Your task to perform on an android device: check battery use Image 0: 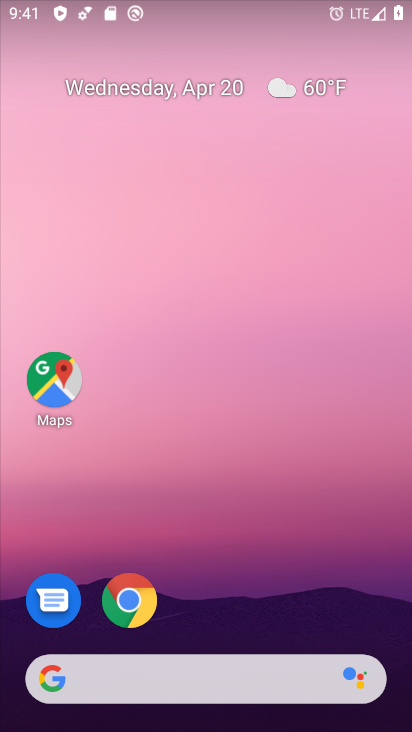
Step 0: drag from (208, 634) to (236, 25)
Your task to perform on an android device: check battery use Image 1: 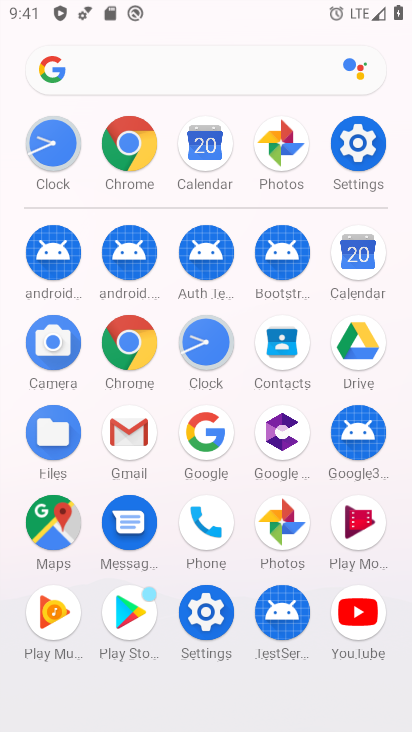
Step 1: click (360, 143)
Your task to perform on an android device: check battery use Image 2: 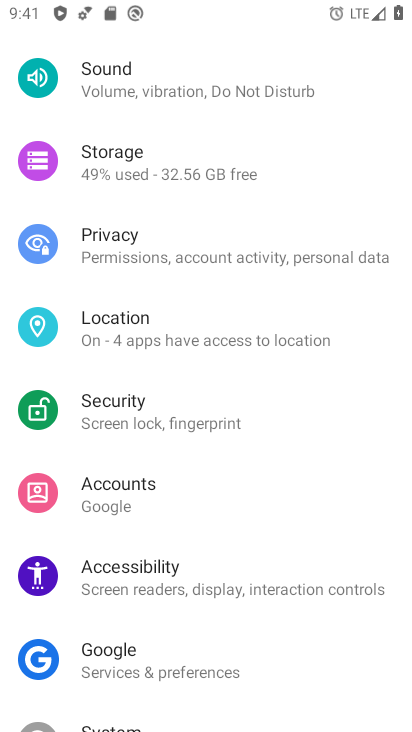
Step 2: drag from (155, 507) to (148, 643)
Your task to perform on an android device: check battery use Image 3: 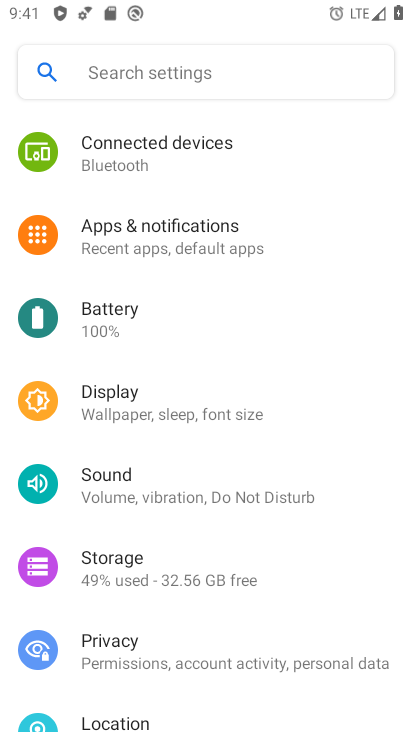
Step 3: click (112, 330)
Your task to perform on an android device: check battery use Image 4: 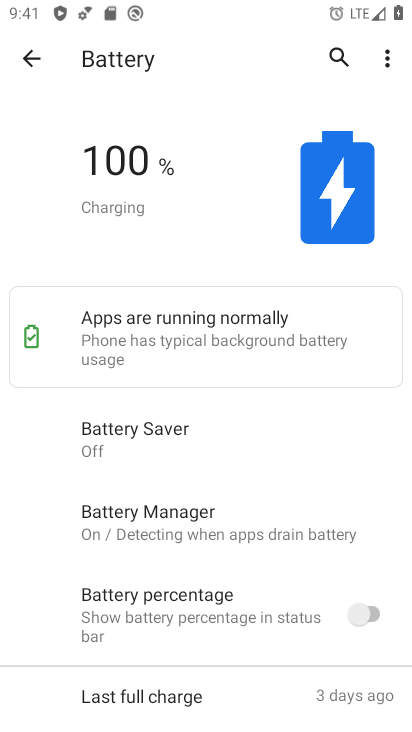
Step 4: task complete